Your task to perform on an android device: turn off translation in the chrome app Image 0: 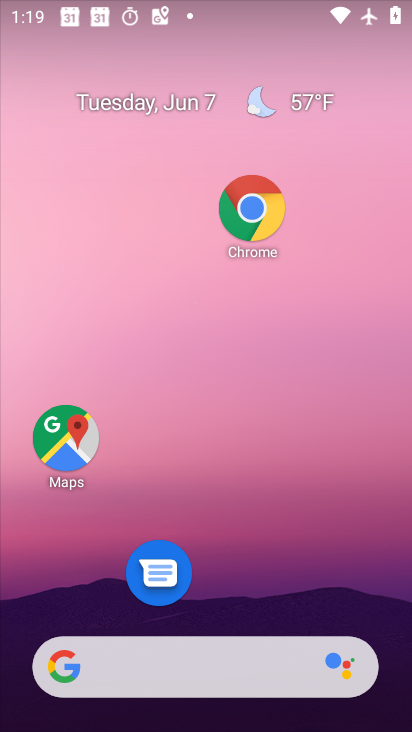
Step 0: click (282, 214)
Your task to perform on an android device: turn off translation in the chrome app Image 1: 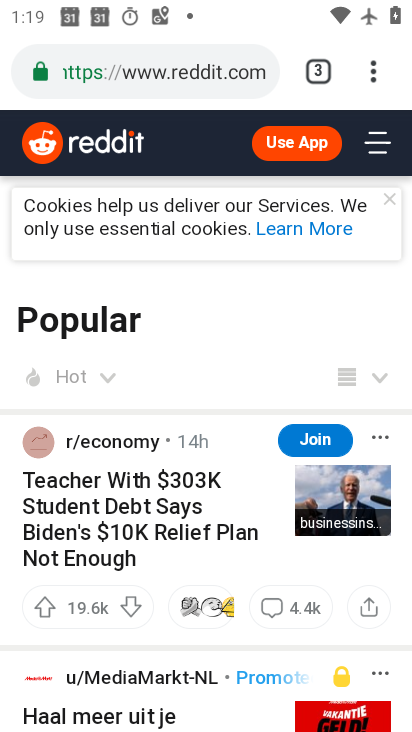
Step 1: click (378, 75)
Your task to perform on an android device: turn off translation in the chrome app Image 2: 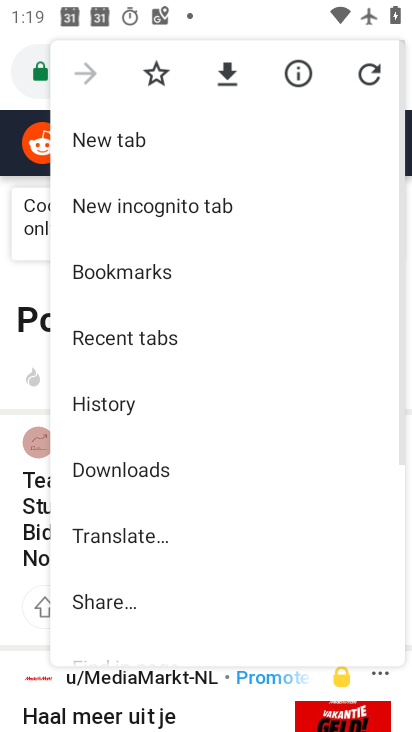
Step 2: drag from (168, 572) to (156, 326)
Your task to perform on an android device: turn off translation in the chrome app Image 3: 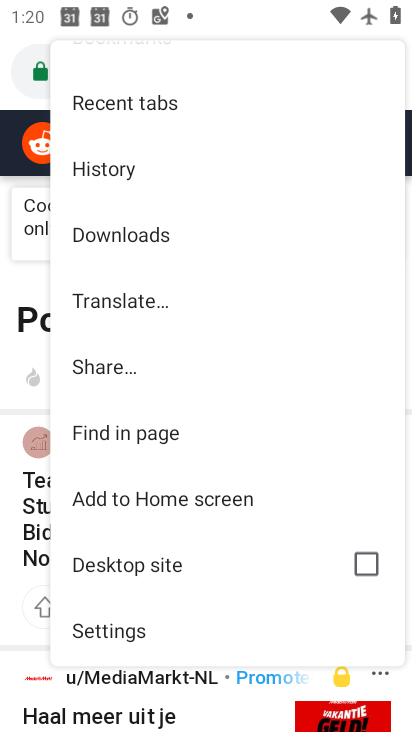
Step 3: drag from (164, 589) to (174, 381)
Your task to perform on an android device: turn off translation in the chrome app Image 4: 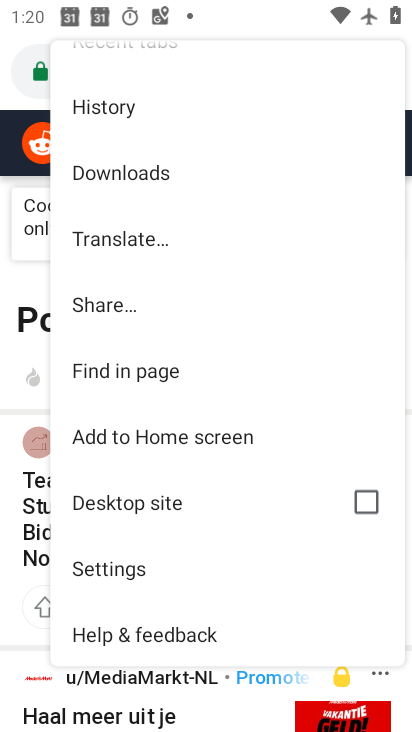
Step 4: click (132, 557)
Your task to perform on an android device: turn off translation in the chrome app Image 5: 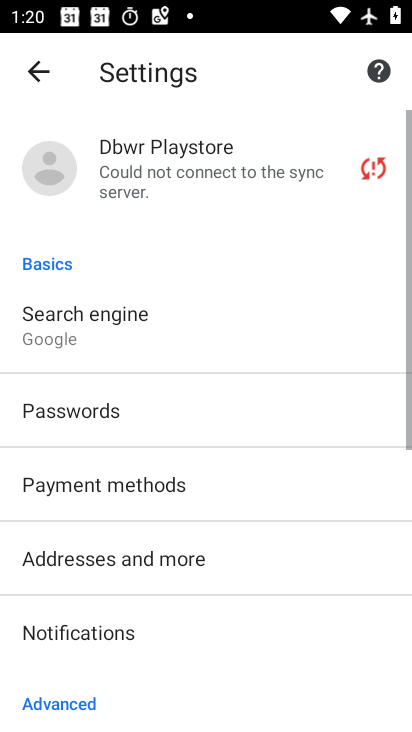
Step 5: drag from (211, 612) to (214, 358)
Your task to perform on an android device: turn off translation in the chrome app Image 6: 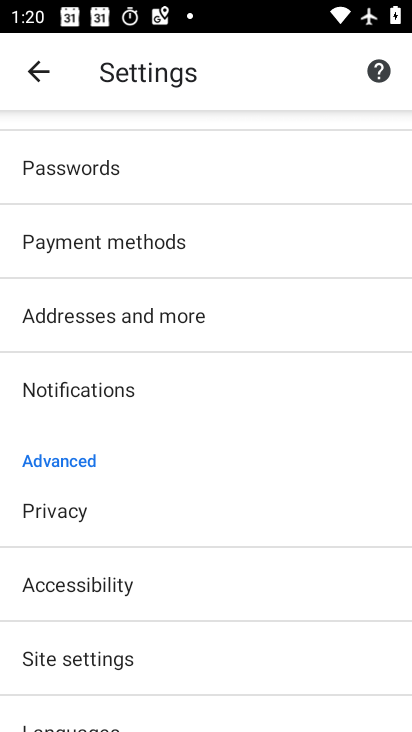
Step 6: drag from (160, 612) to (141, 325)
Your task to perform on an android device: turn off translation in the chrome app Image 7: 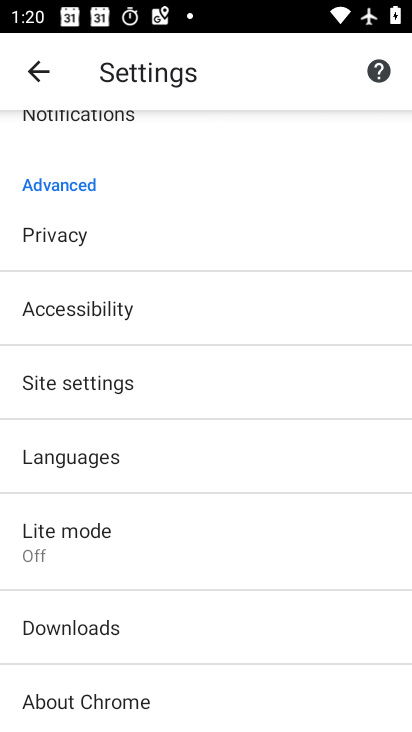
Step 7: click (139, 468)
Your task to perform on an android device: turn off translation in the chrome app Image 8: 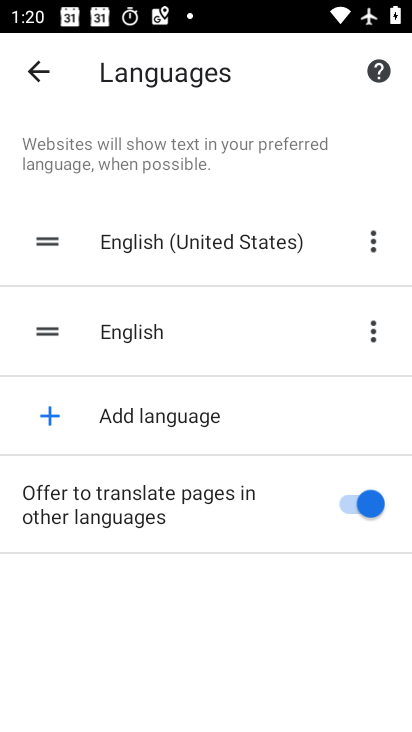
Step 8: click (343, 505)
Your task to perform on an android device: turn off translation in the chrome app Image 9: 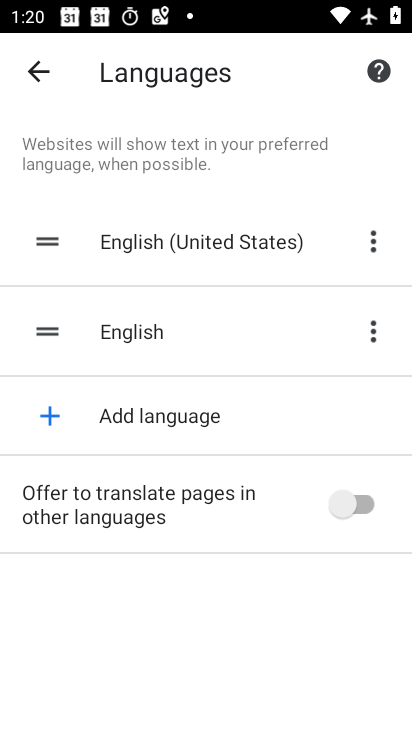
Step 9: task complete